Your task to perform on an android device: Open internet settings Image 0: 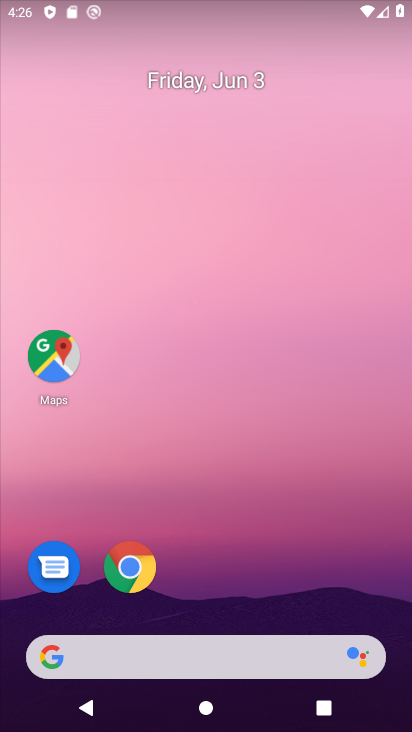
Step 0: drag from (276, 532) to (256, 34)
Your task to perform on an android device: Open internet settings Image 1: 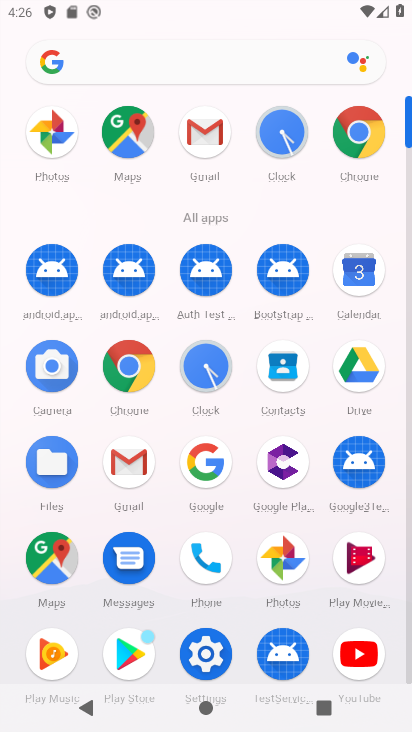
Step 1: drag from (247, 443) to (255, 213)
Your task to perform on an android device: Open internet settings Image 2: 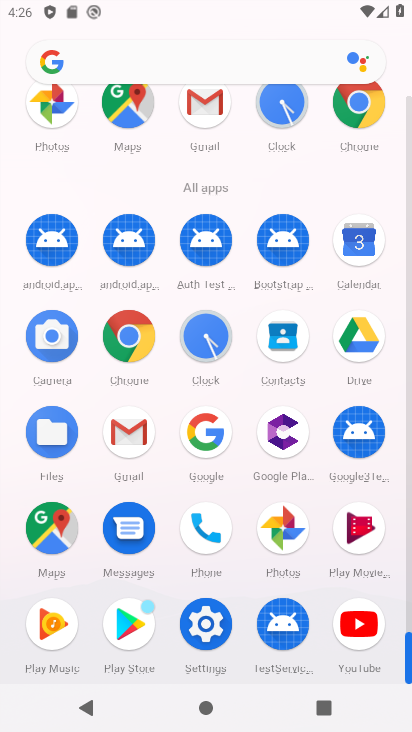
Step 2: click (208, 624)
Your task to perform on an android device: Open internet settings Image 3: 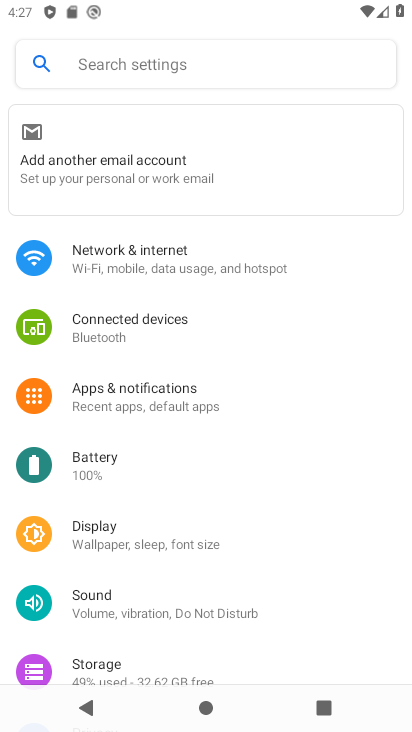
Step 3: click (156, 266)
Your task to perform on an android device: Open internet settings Image 4: 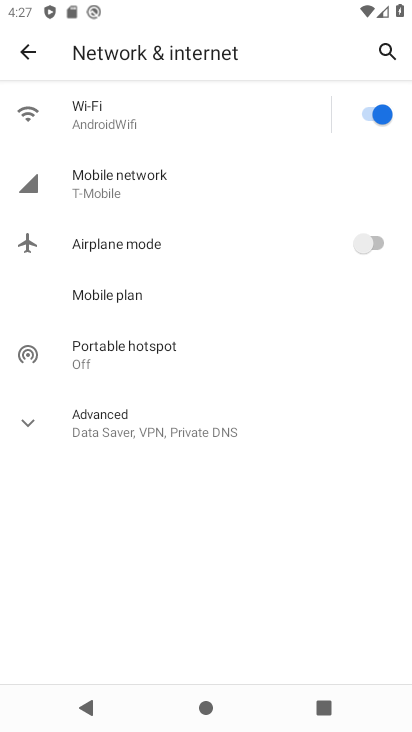
Step 4: click (92, 119)
Your task to perform on an android device: Open internet settings Image 5: 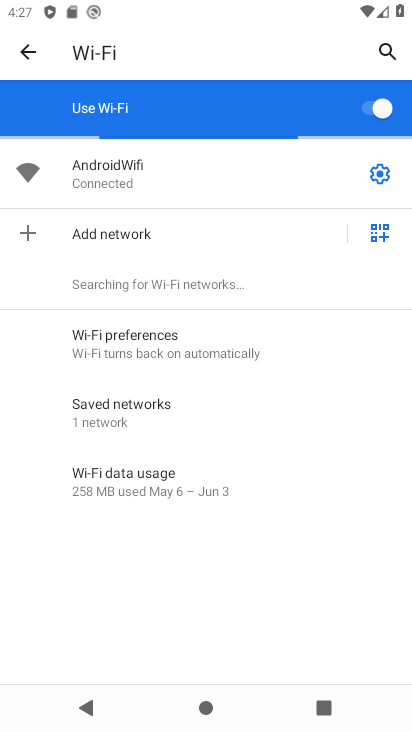
Step 5: task complete